Your task to perform on an android device: Open display settings Image 0: 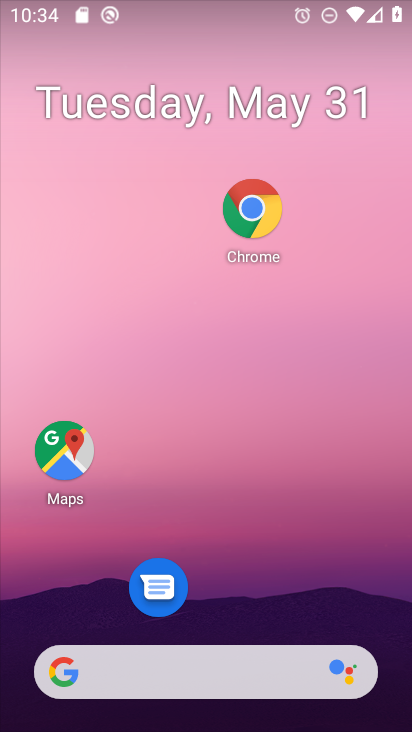
Step 0: press home button
Your task to perform on an android device: Open display settings Image 1: 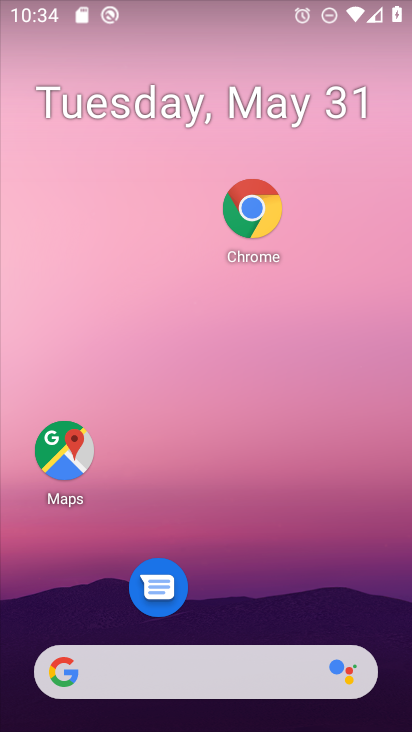
Step 1: drag from (218, 627) to (199, 50)
Your task to perform on an android device: Open display settings Image 2: 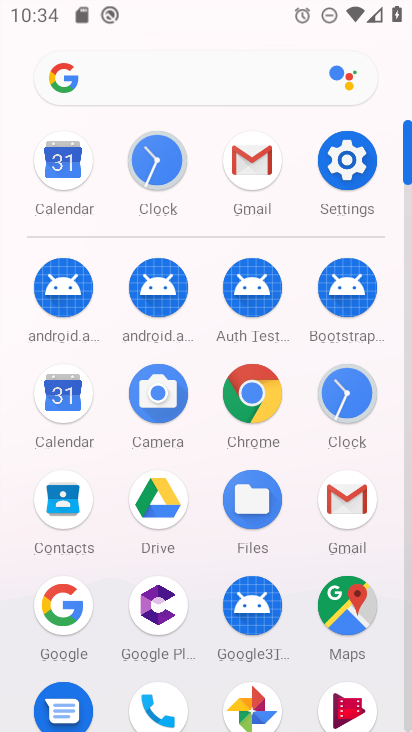
Step 2: click (345, 152)
Your task to perform on an android device: Open display settings Image 3: 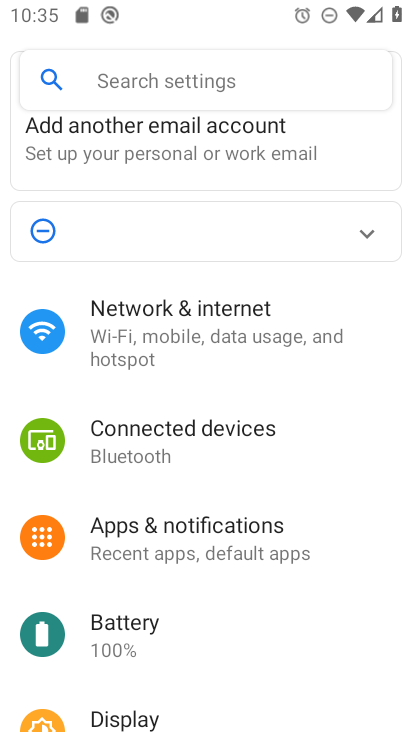
Step 3: click (184, 715)
Your task to perform on an android device: Open display settings Image 4: 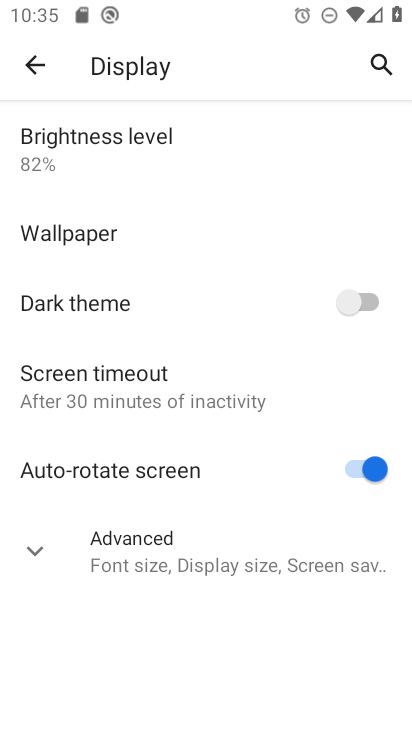
Step 4: click (29, 541)
Your task to perform on an android device: Open display settings Image 5: 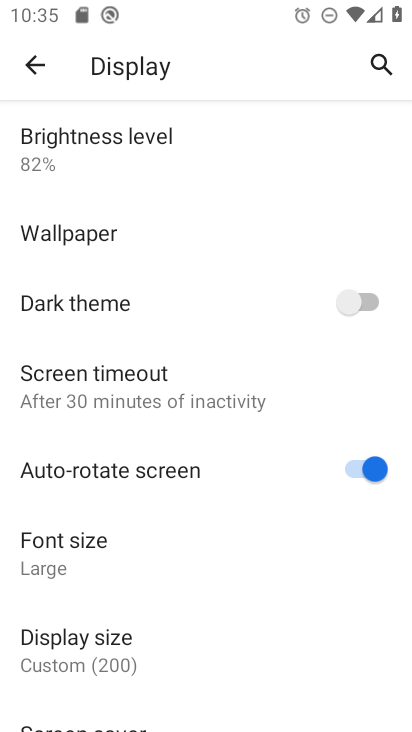
Step 5: task complete